Your task to perform on an android device: check google app version Image 0: 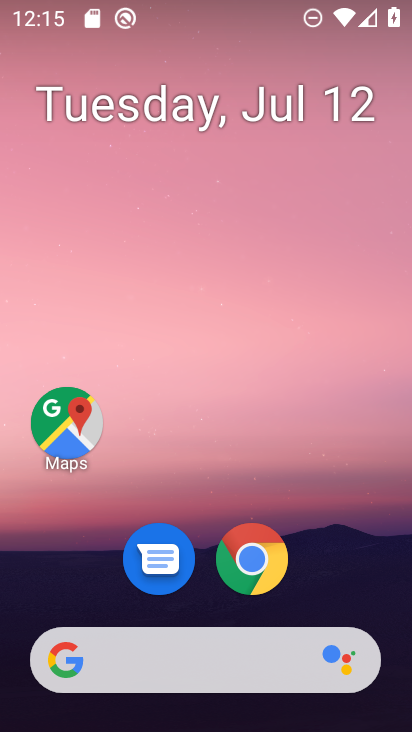
Step 0: drag from (200, 608) to (241, 0)
Your task to perform on an android device: check google app version Image 1: 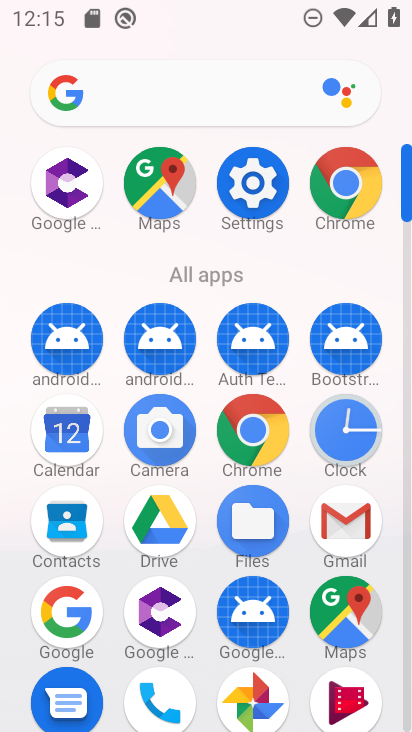
Step 1: click (70, 605)
Your task to perform on an android device: check google app version Image 2: 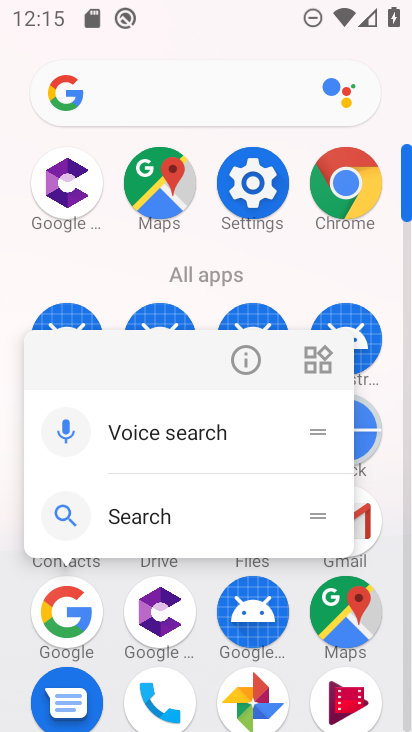
Step 2: click (238, 350)
Your task to perform on an android device: check google app version Image 3: 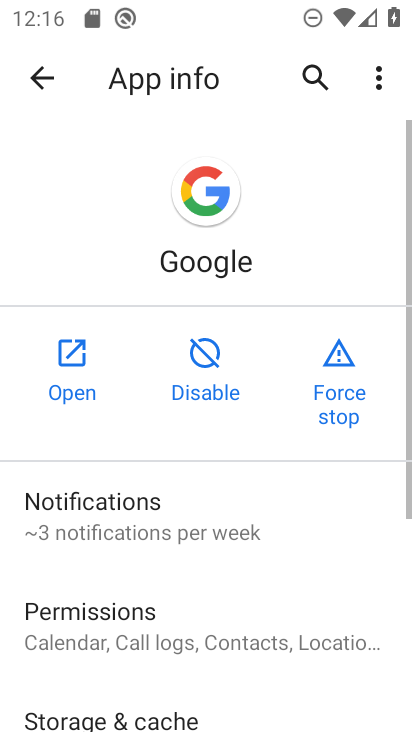
Step 3: drag from (221, 657) to (238, 36)
Your task to perform on an android device: check google app version Image 4: 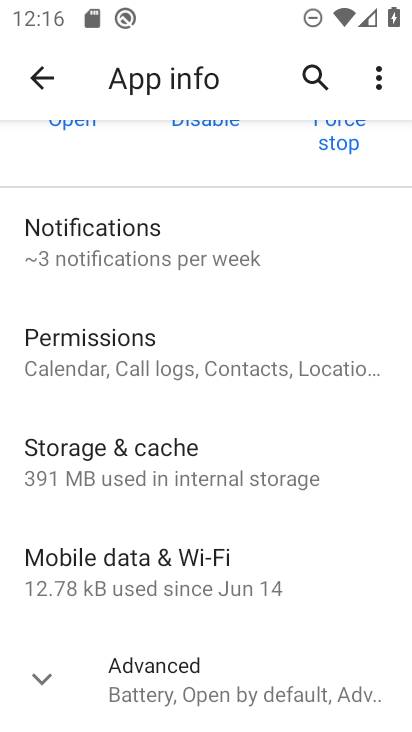
Step 4: click (176, 664)
Your task to perform on an android device: check google app version Image 5: 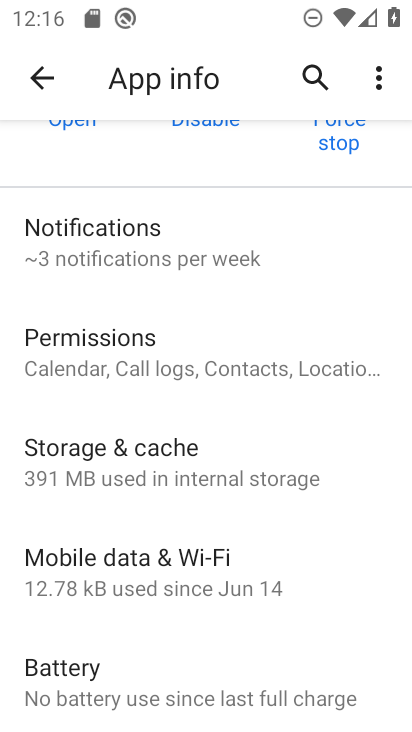
Step 5: task complete